Your task to perform on an android device: Go to CNN.com Image 0: 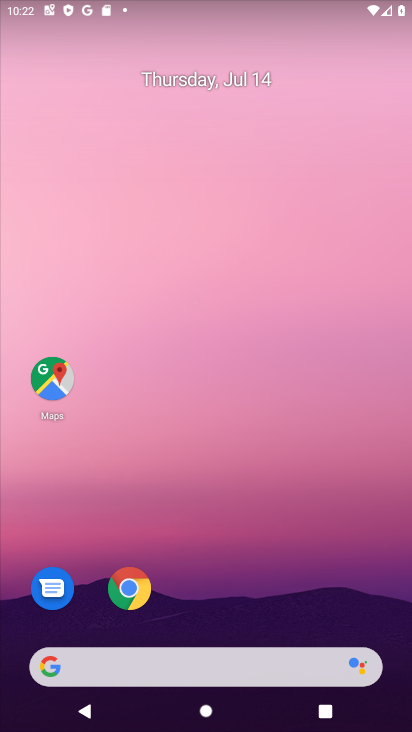
Step 0: click (136, 595)
Your task to perform on an android device: Go to CNN.com Image 1: 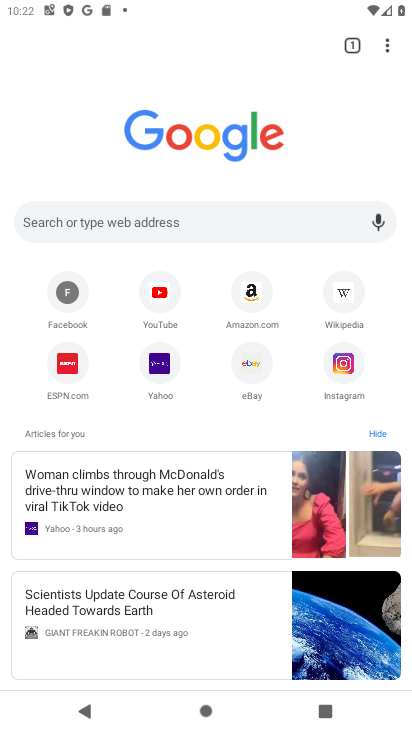
Step 1: click (133, 221)
Your task to perform on an android device: Go to CNN.com Image 2: 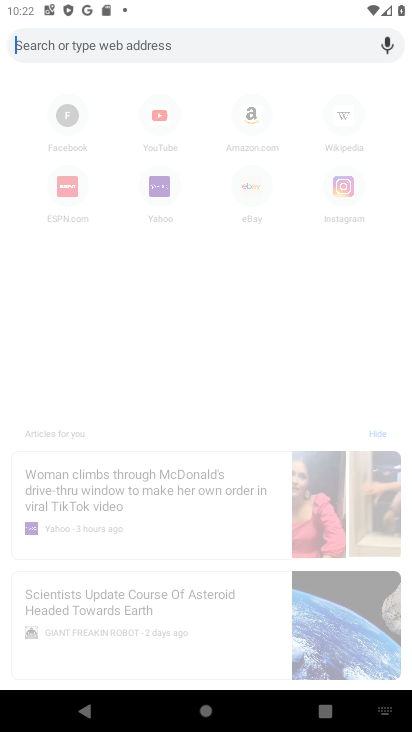
Step 2: type "cnn.com"
Your task to perform on an android device: Go to CNN.com Image 3: 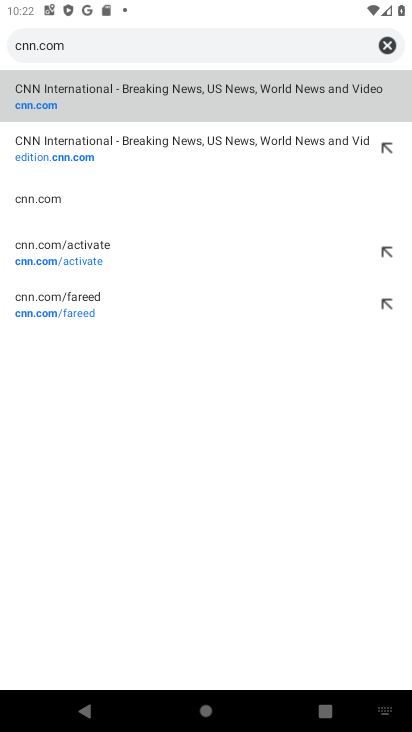
Step 3: click (258, 105)
Your task to perform on an android device: Go to CNN.com Image 4: 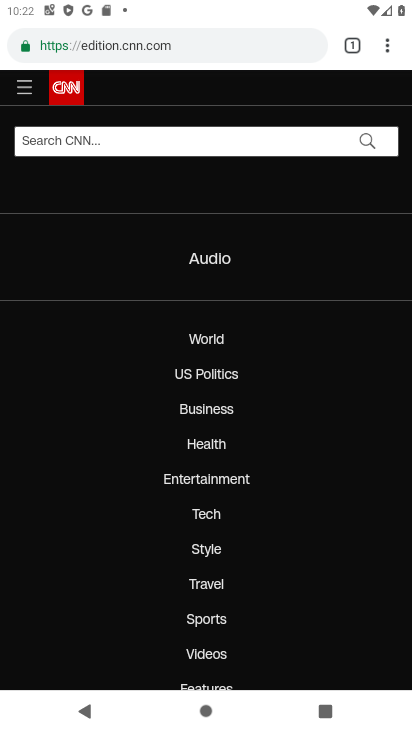
Step 4: task complete